Your task to perform on an android device: Open Yahoo.com Image 0: 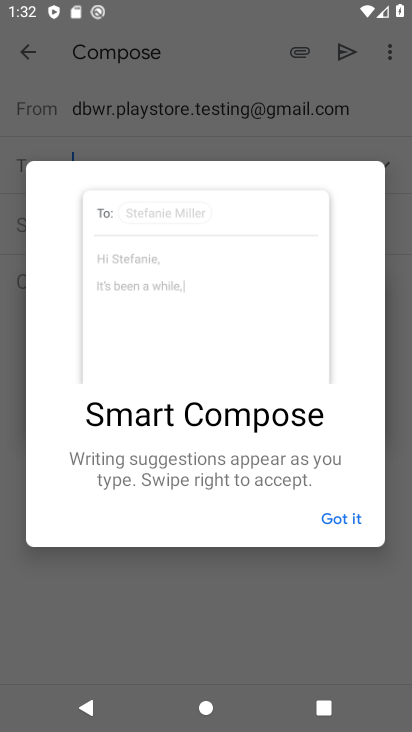
Step 0: press back button
Your task to perform on an android device: Open Yahoo.com Image 1: 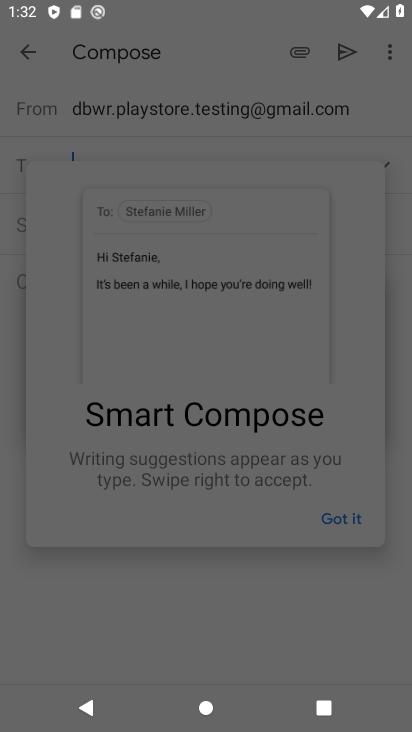
Step 1: press home button
Your task to perform on an android device: Open Yahoo.com Image 2: 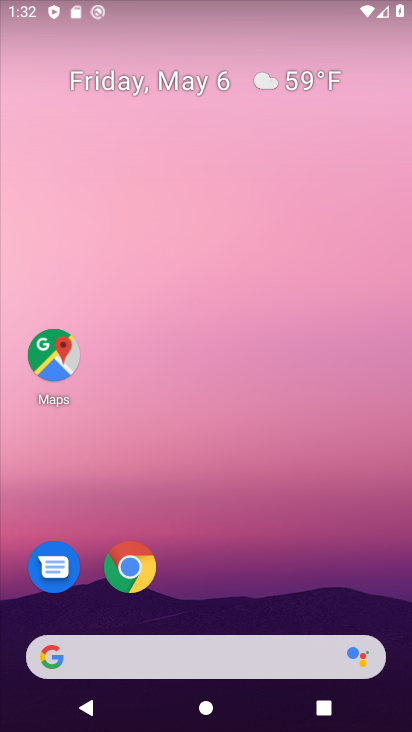
Step 2: click (128, 568)
Your task to perform on an android device: Open Yahoo.com Image 3: 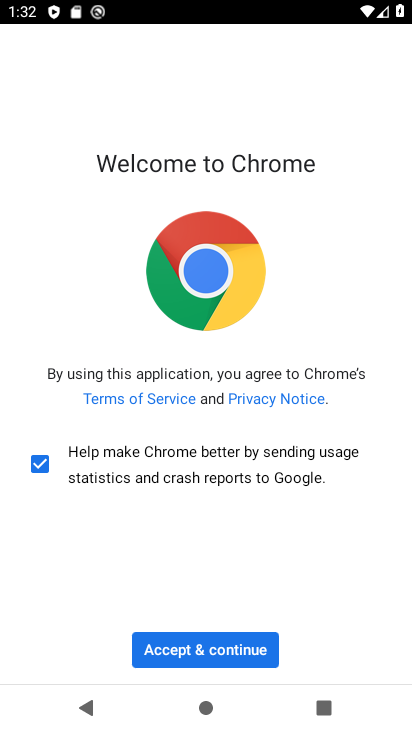
Step 3: click (178, 655)
Your task to perform on an android device: Open Yahoo.com Image 4: 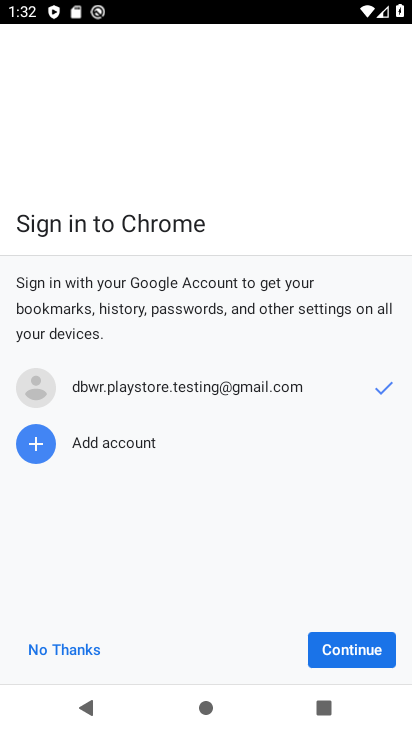
Step 4: click (337, 651)
Your task to perform on an android device: Open Yahoo.com Image 5: 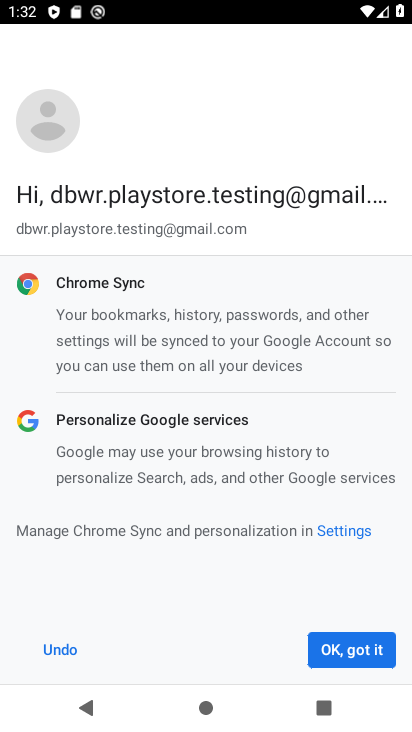
Step 5: click (337, 651)
Your task to perform on an android device: Open Yahoo.com Image 6: 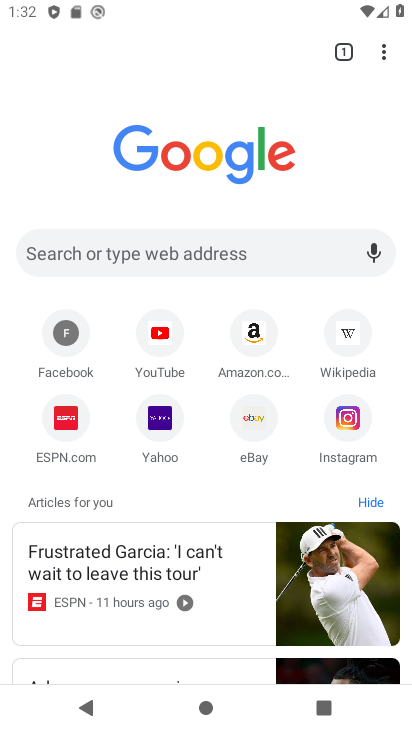
Step 6: click (251, 249)
Your task to perform on an android device: Open Yahoo.com Image 7: 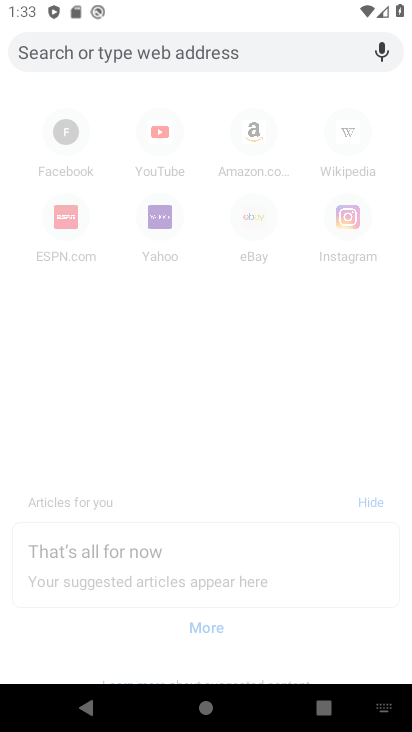
Step 7: type "Yahoo.com"
Your task to perform on an android device: Open Yahoo.com Image 8: 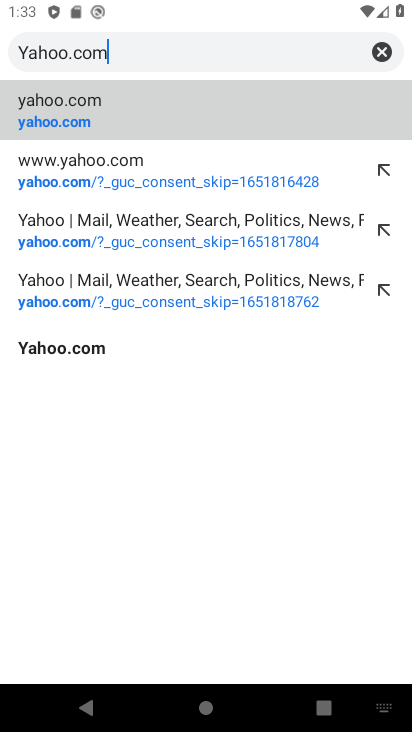
Step 8: type ""
Your task to perform on an android device: Open Yahoo.com Image 9: 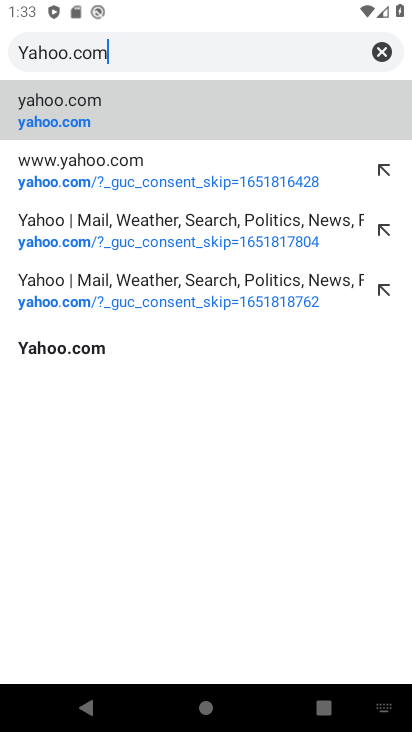
Step 9: click (74, 343)
Your task to perform on an android device: Open Yahoo.com Image 10: 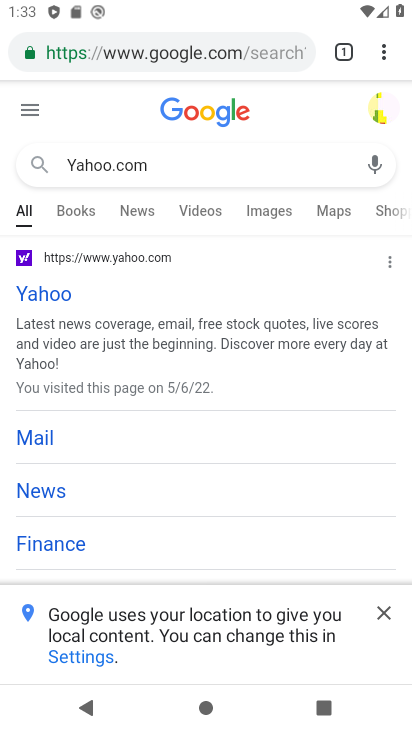
Step 10: click (66, 304)
Your task to perform on an android device: Open Yahoo.com Image 11: 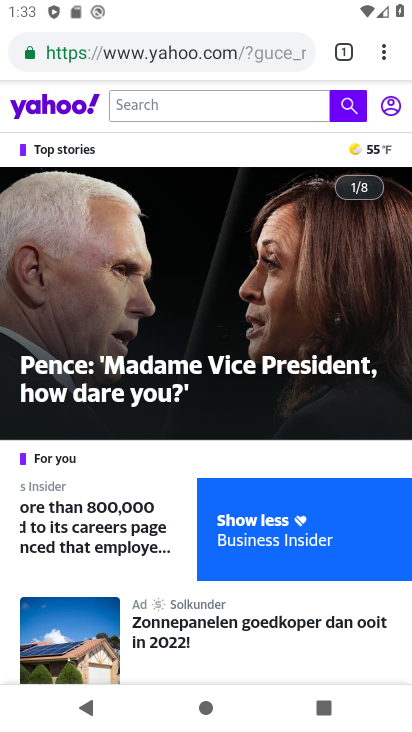
Step 11: task complete